Your task to perform on an android device: Open internet settings Image 0: 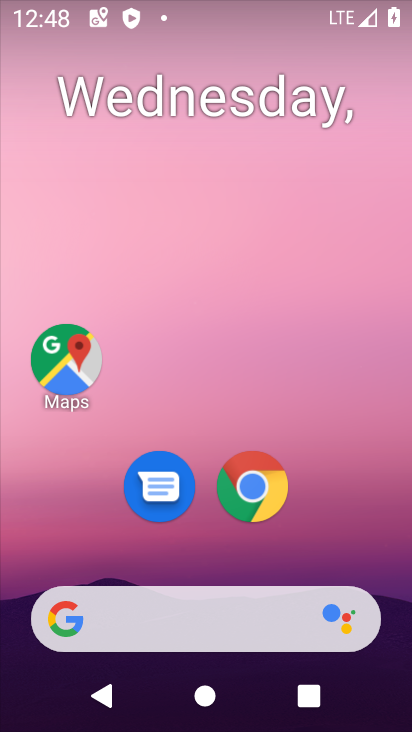
Step 0: drag from (374, 539) to (362, 15)
Your task to perform on an android device: Open internet settings Image 1: 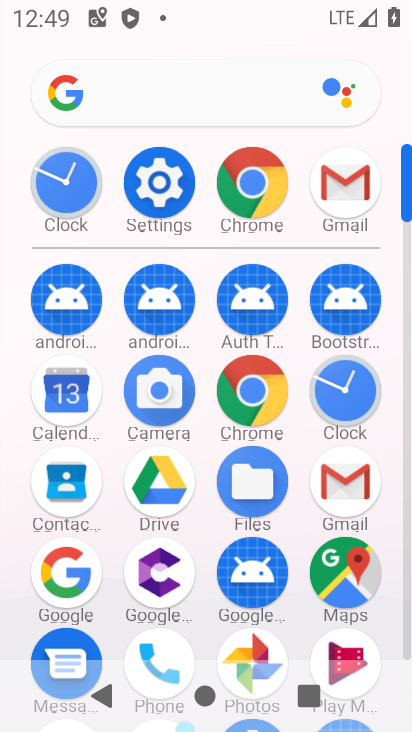
Step 1: click (165, 194)
Your task to perform on an android device: Open internet settings Image 2: 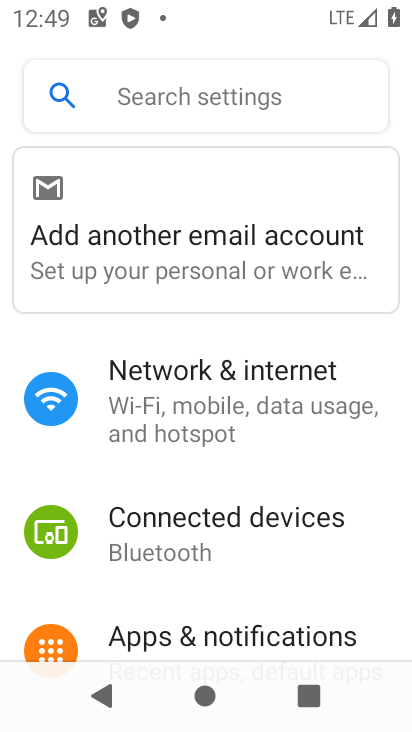
Step 2: drag from (362, 507) to (362, 400)
Your task to perform on an android device: Open internet settings Image 3: 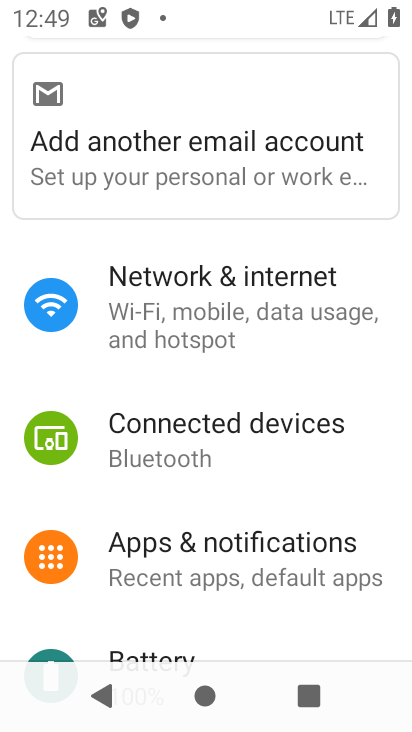
Step 3: drag from (379, 488) to (379, 339)
Your task to perform on an android device: Open internet settings Image 4: 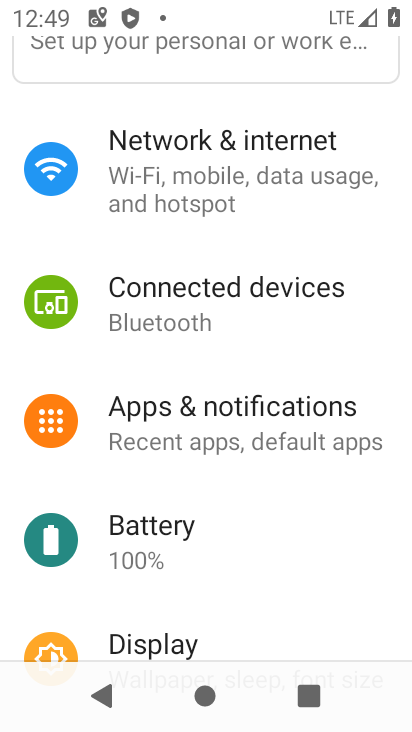
Step 4: drag from (381, 559) to (382, 398)
Your task to perform on an android device: Open internet settings Image 5: 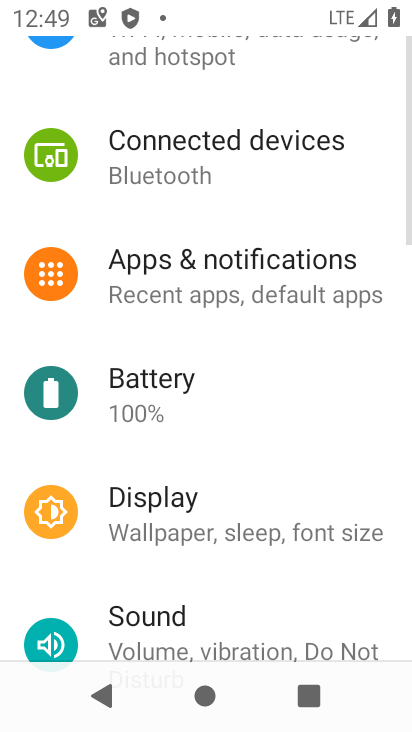
Step 5: drag from (349, 580) to (348, 422)
Your task to perform on an android device: Open internet settings Image 6: 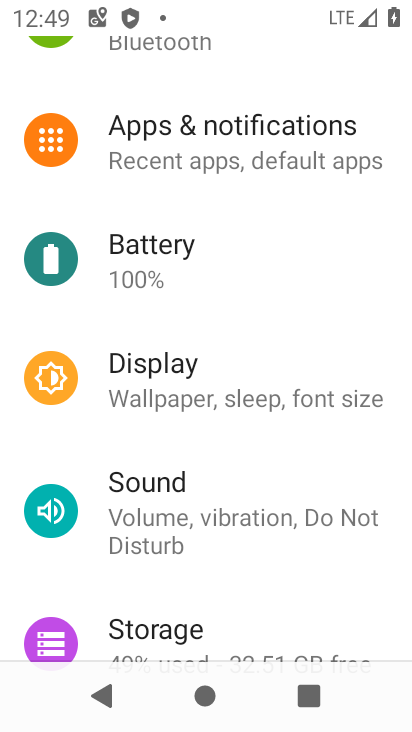
Step 6: drag from (321, 567) to (338, 419)
Your task to perform on an android device: Open internet settings Image 7: 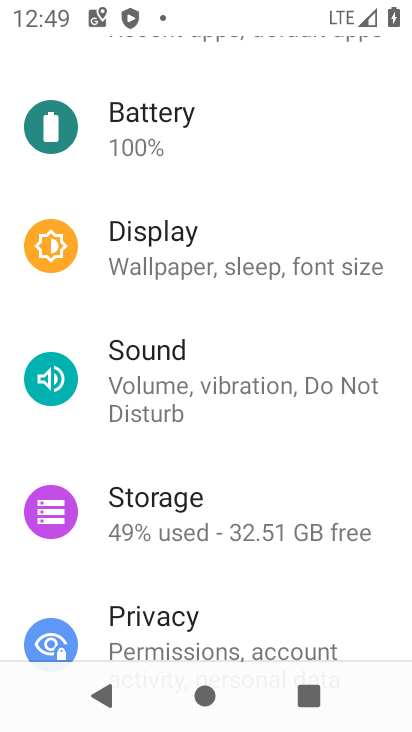
Step 7: drag from (372, 553) to (373, 330)
Your task to perform on an android device: Open internet settings Image 8: 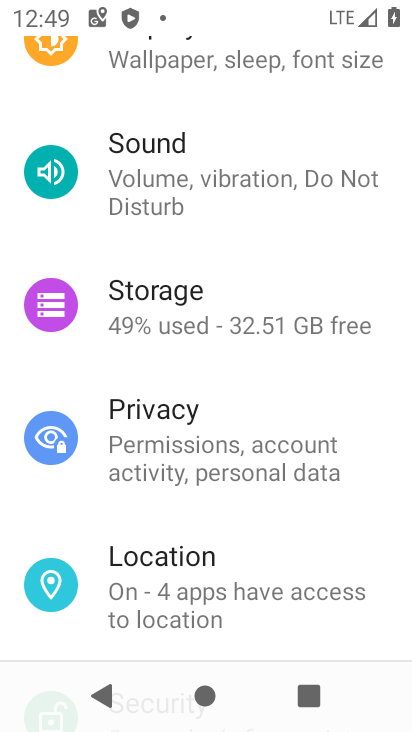
Step 8: drag from (389, 492) to (380, 308)
Your task to perform on an android device: Open internet settings Image 9: 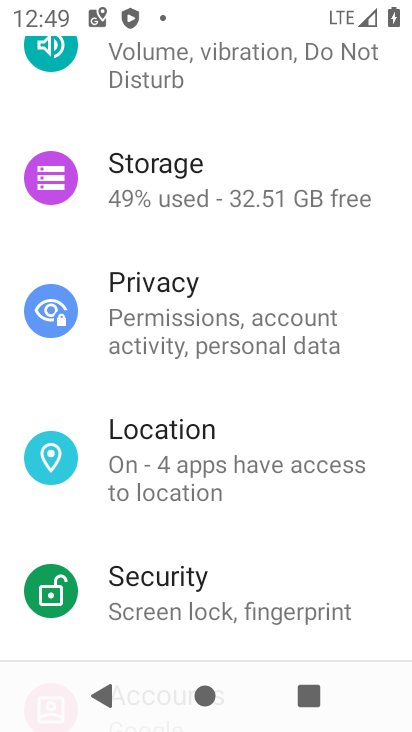
Step 9: drag from (371, 522) to (364, 296)
Your task to perform on an android device: Open internet settings Image 10: 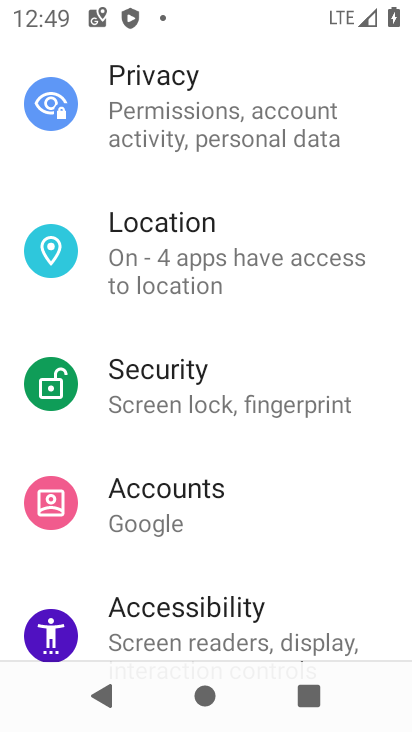
Step 10: drag from (369, 525) to (370, 283)
Your task to perform on an android device: Open internet settings Image 11: 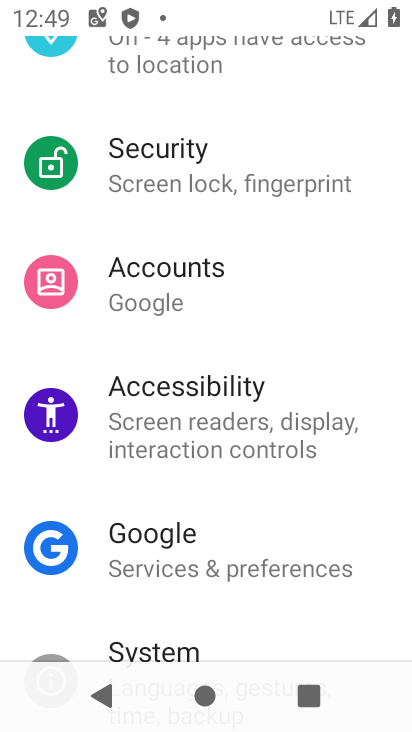
Step 11: drag from (368, 261) to (346, 428)
Your task to perform on an android device: Open internet settings Image 12: 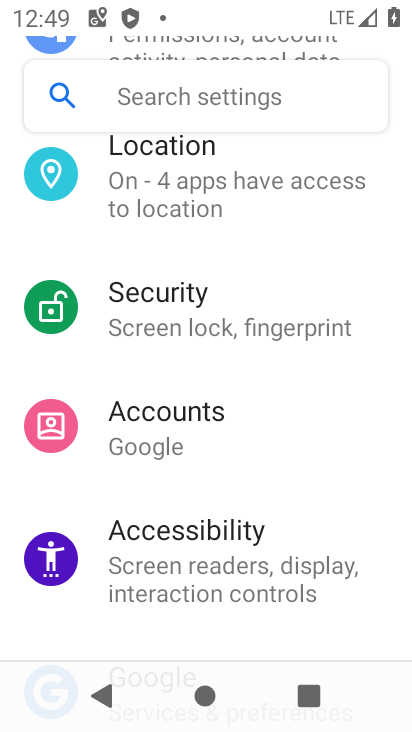
Step 12: drag from (359, 238) to (359, 457)
Your task to perform on an android device: Open internet settings Image 13: 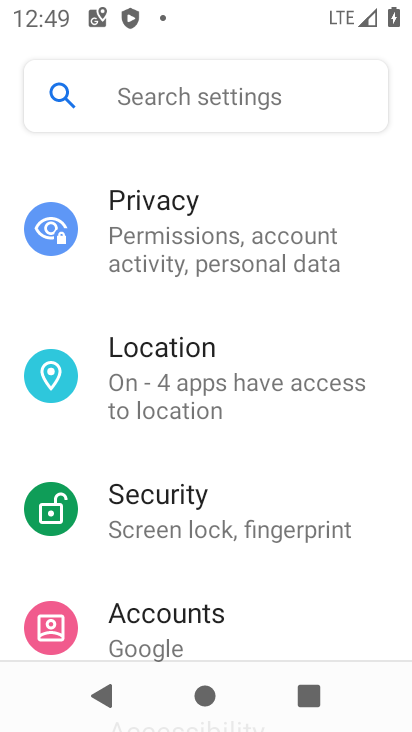
Step 13: drag from (368, 212) to (366, 426)
Your task to perform on an android device: Open internet settings Image 14: 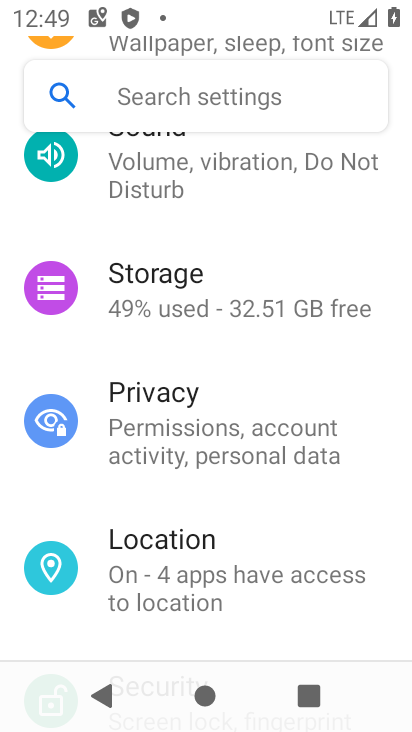
Step 14: drag from (360, 239) to (366, 411)
Your task to perform on an android device: Open internet settings Image 15: 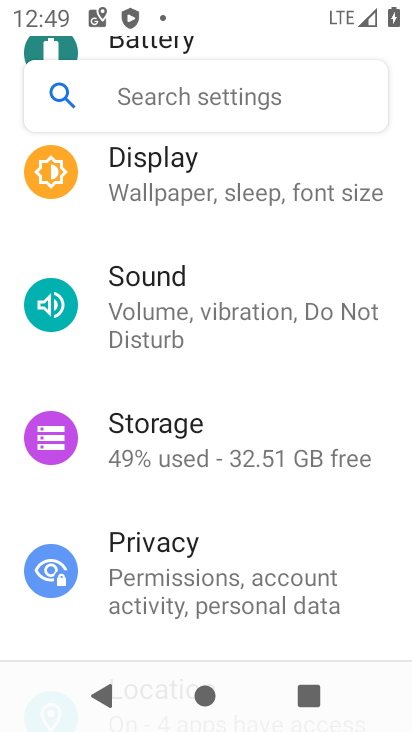
Step 15: drag from (368, 159) to (374, 396)
Your task to perform on an android device: Open internet settings Image 16: 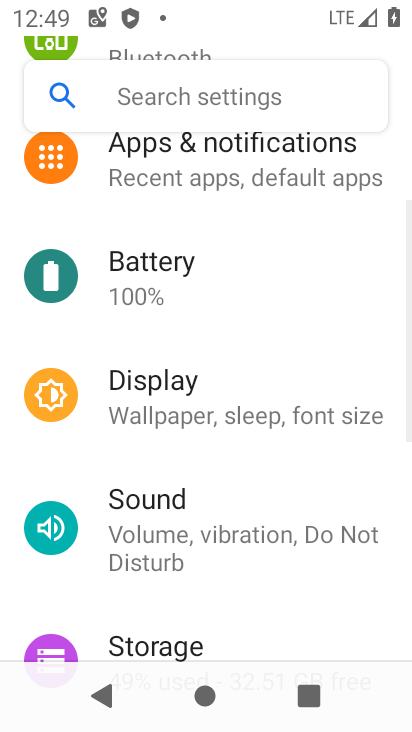
Step 16: drag from (367, 215) to (357, 422)
Your task to perform on an android device: Open internet settings Image 17: 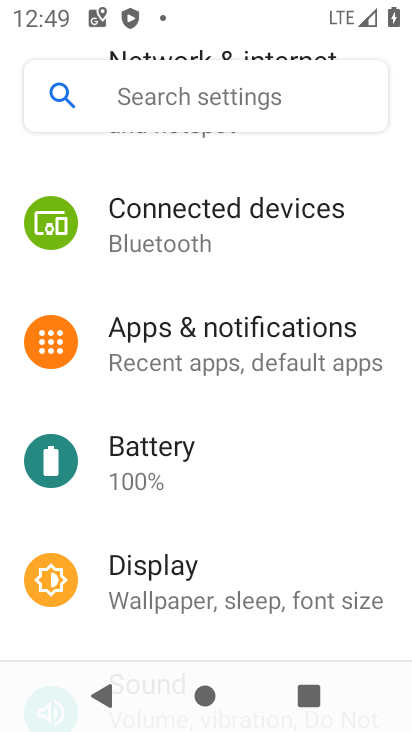
Step 17: drag from (366, 217) to (348, 395)
Your task to perform on an android device: Open internet settings Image 18: 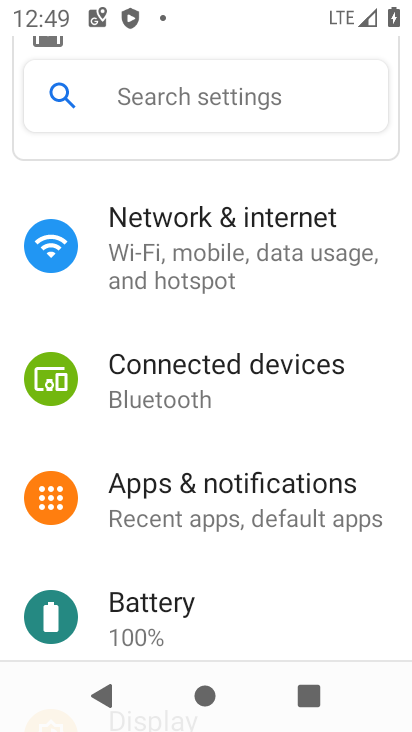
Step 18: drag from (375, 198) to (352, 410)
Your task to perform on an android device: Open internet settings Image 19: 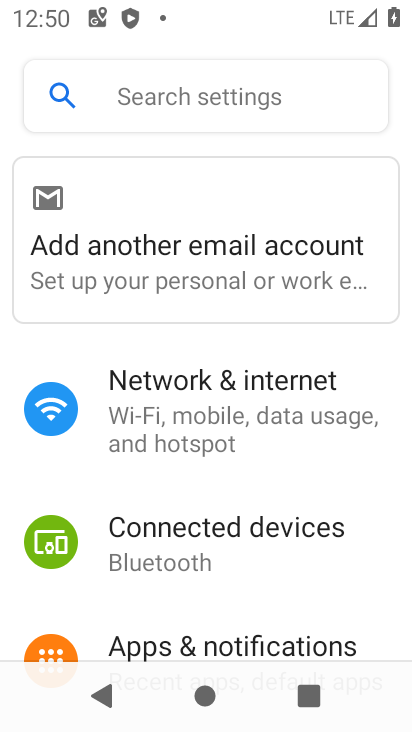
Step 19: click (290, 391)
Your task to perform on an android device: Open internet settings Image 20: 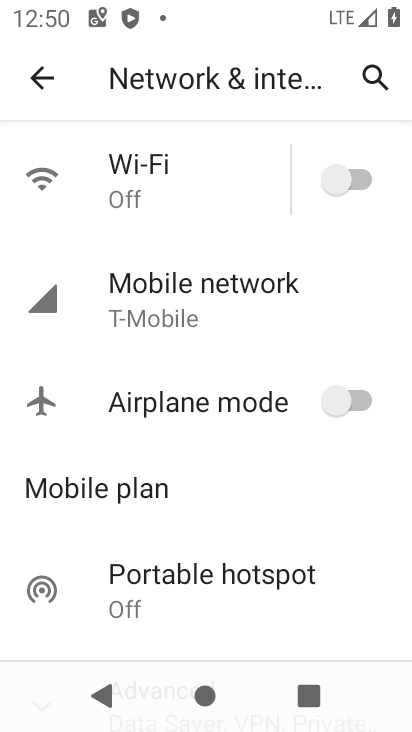
Step 20: task complete